Your task to perform on an android device: Open my contact list Image 0: 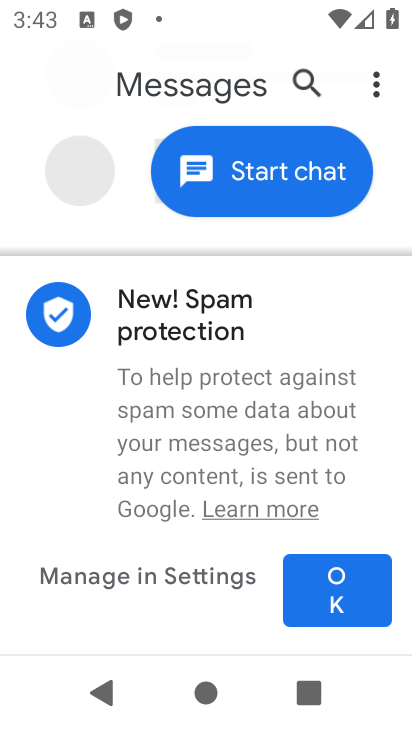
Step 0: task complete